Your task to perform on an android device: Open notification settings Image 0: 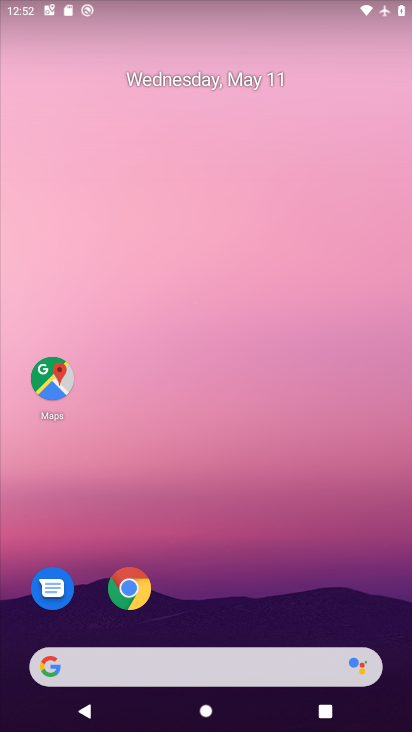
Step 0: drag from (199, 598) to (199, 238)
Your task to perform on an android device: Open notification settings Image 1: 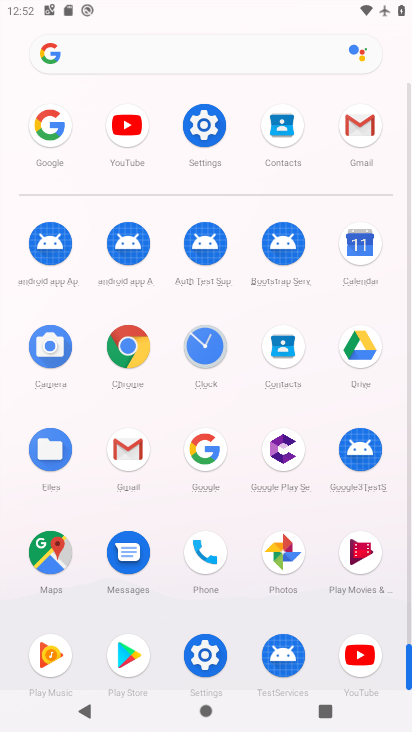
Step 1: click (199, 134)
Your task to perform on an android device: Open notification settings Image 2: 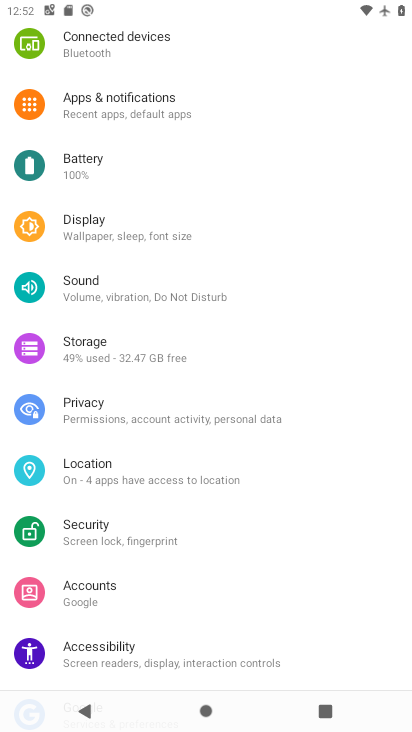
Step 2: click (168, 115)
Your task to perform on an android device: Open notification settings Image 3: 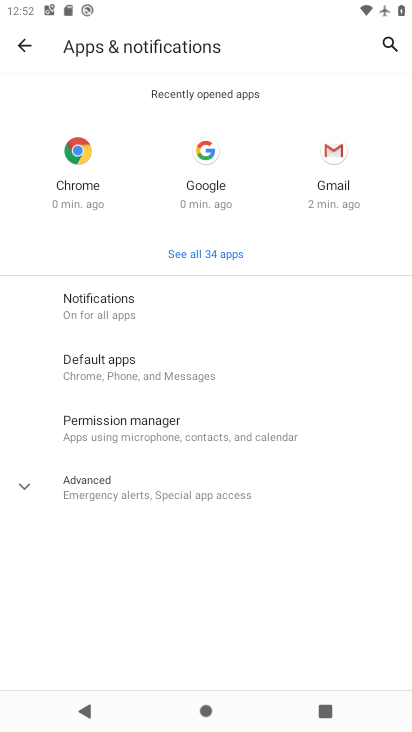
Step 3: click (135, 484)
Your task to perform on an android device: Open notification settings Image 4: 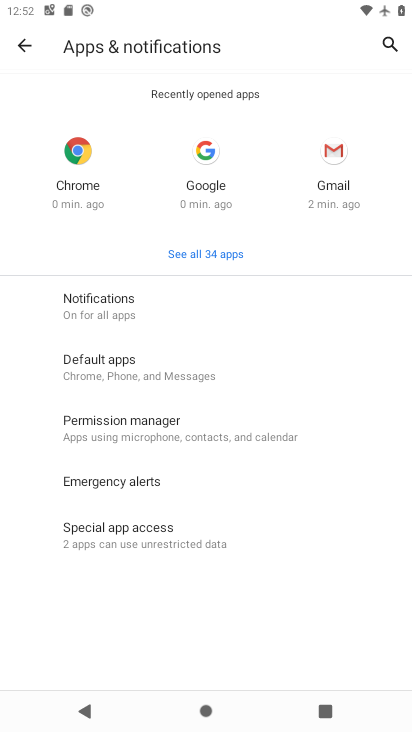
Step 4: task complete